Your task to perform on an android device: Go to Google maps Image 0: 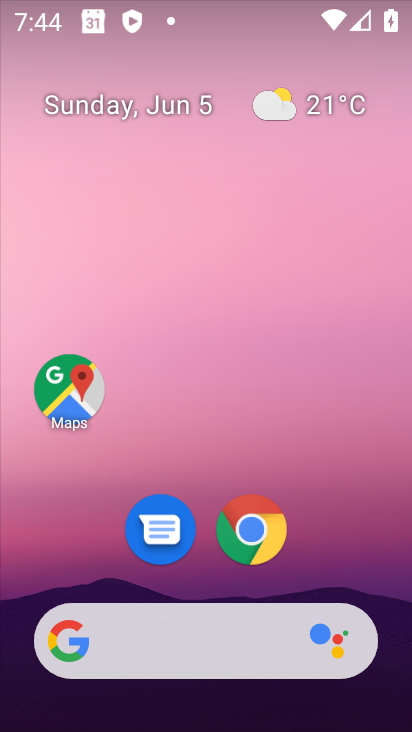
Step 0: click (319, 0)
Your task to perform on an android device: Go to Google maps Image 1: 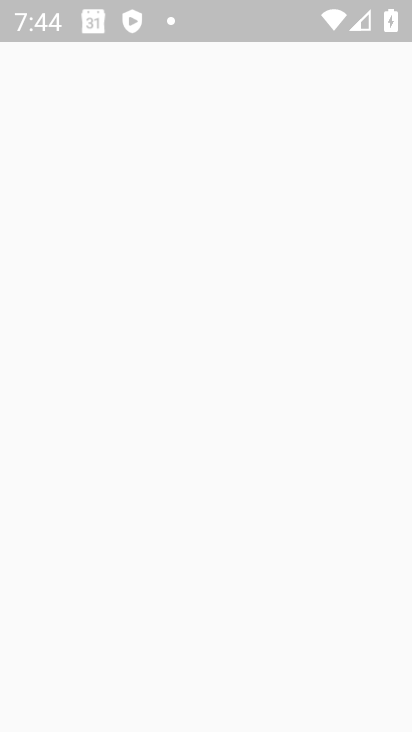
Step 1: press home button
Your task to perform on an android device: Go to Google maps Image 2: 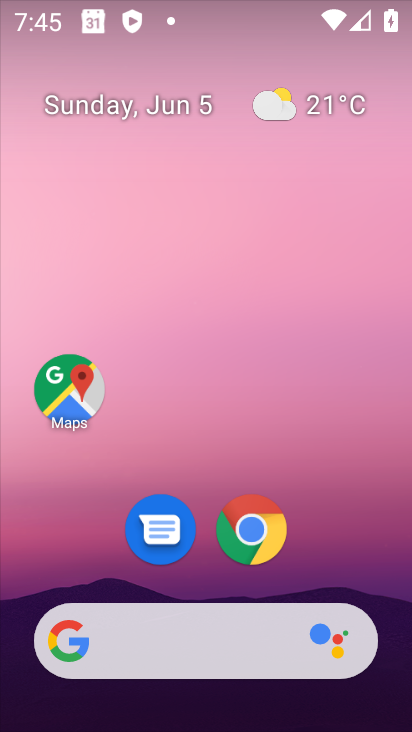
Step 2: click (62, 406)
Your task to perform on an android device: Go to Google maps Image 3: 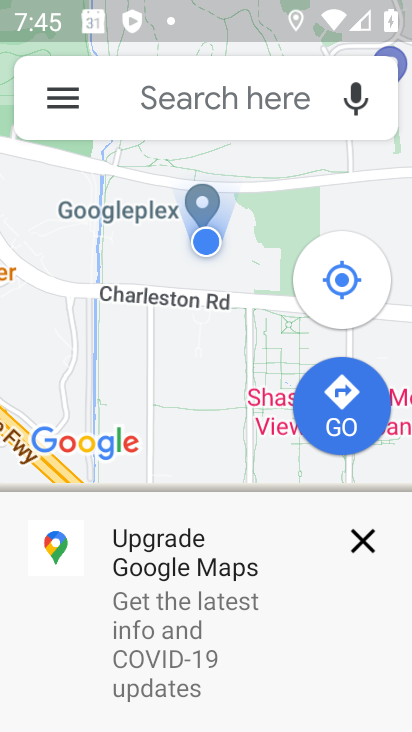
Step 3: click (348, 537)
Your task to perform on an android device: Go to Google maps Image 4: 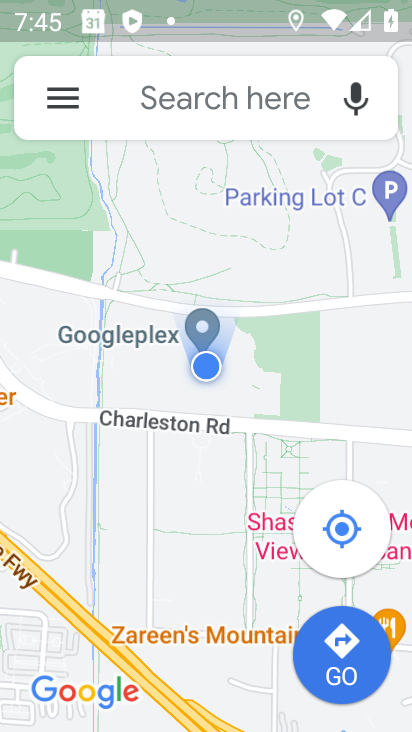
Step 4: task complete